Your task to perform on an android device: Set the phone to "Do not disturb". Image 0: 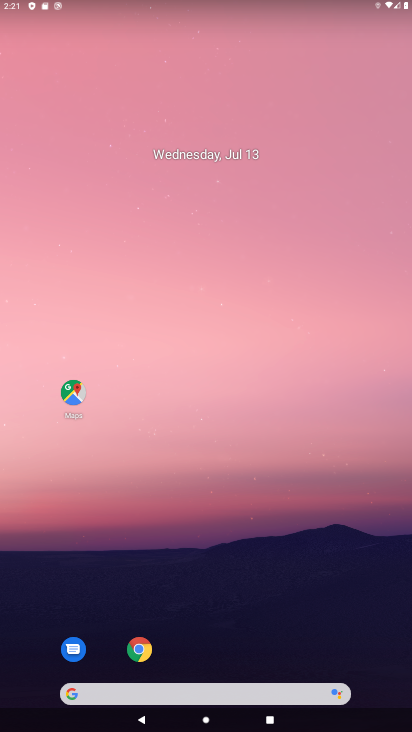
Step 0: drag from (232, 563) to (171, 10)
Your task to perform on an android device: Set the phone to "Do not disturb". Image 1: 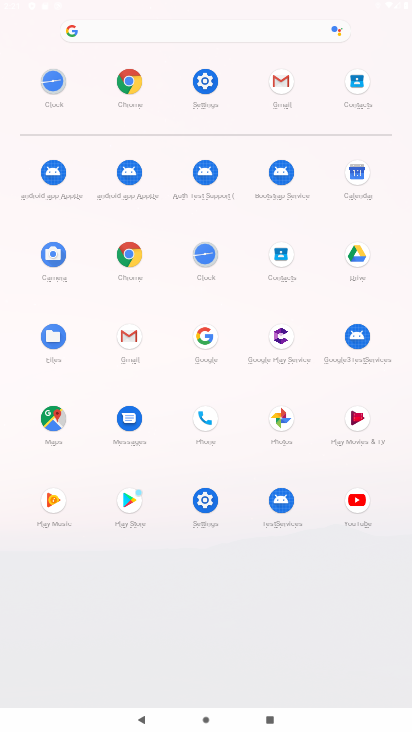
Step 1: click (204, 81)
Your task to perform on an android device: Set the phone to "Do not disturb". Image 2: 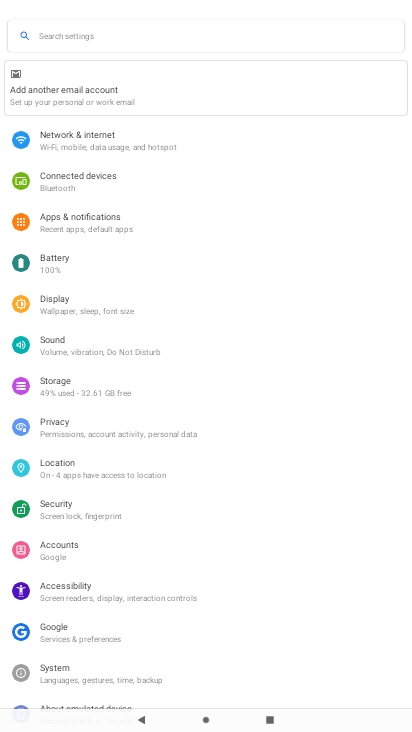
Step 2: click (59, 341)
Your task to perform on an android device: Set the phone to "Do not disturb". Image 3: 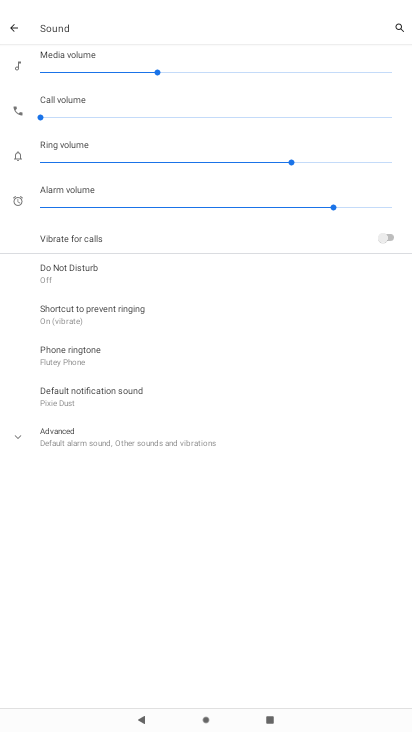
Step 3: click (51, 273)
Your task to perform on an android device: Set the phone to "Do not disturb". Image 4: 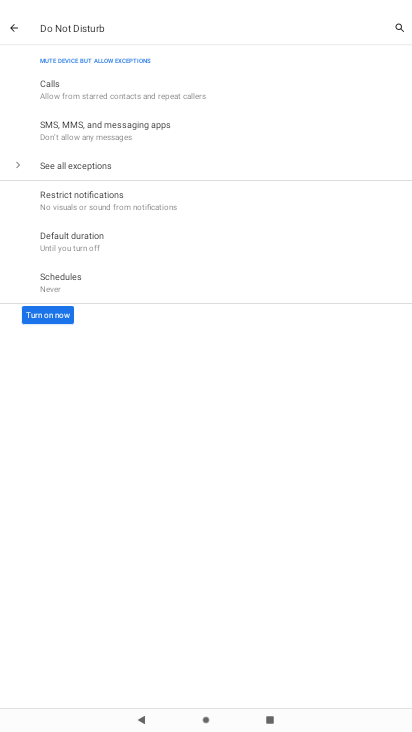
Step 4: click (51, 313)
Your task to perform on an android device: Set the phone to "Do not disturb". Image 5: 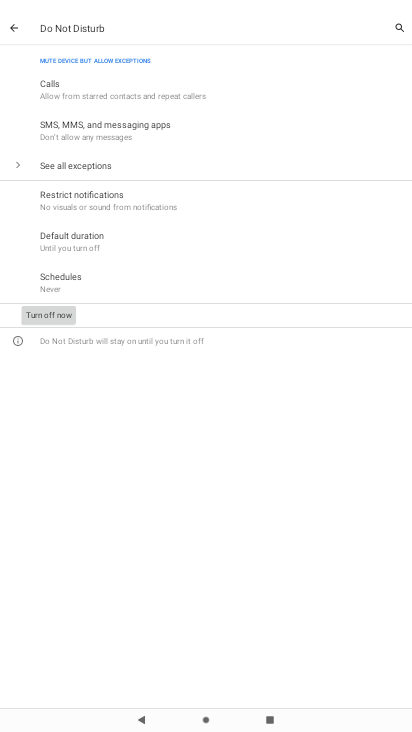
Step 5: task complete